Your task to perform on an android device: turn on location history Image 0: 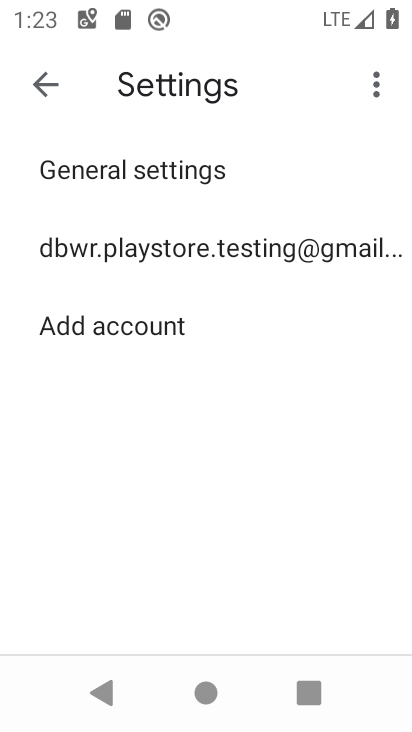
Step 0: press home button
Your task to perform on an android device: turn on location history Image 1: 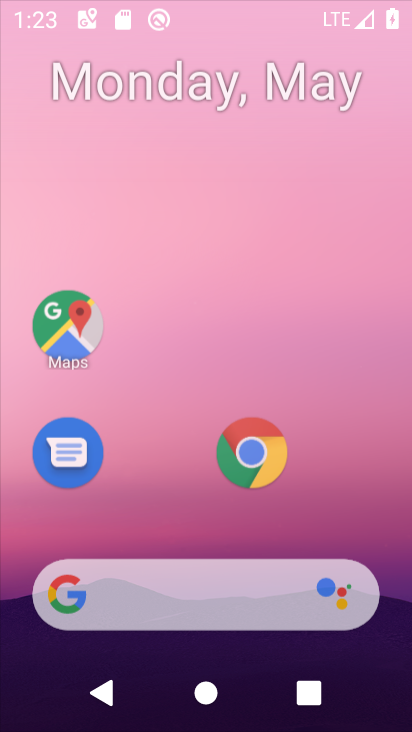
Step 1: drag from (148, 556) to (381, 5)
Your task to perform on an android device: turn on location history Image 2: 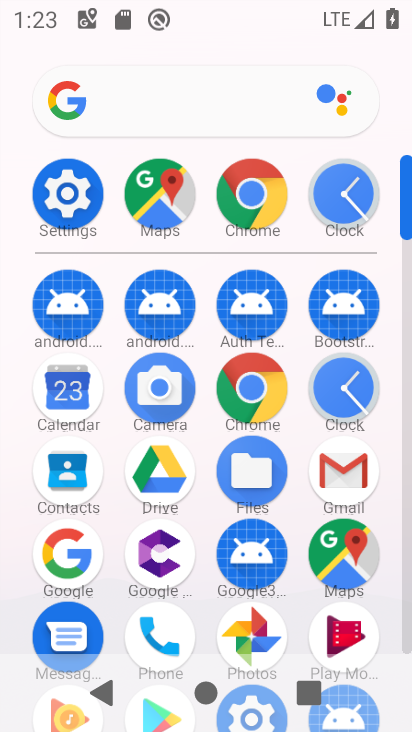
Step 2: click (78, 197)
Your task to perform on an android device: turn on location history Image 3: 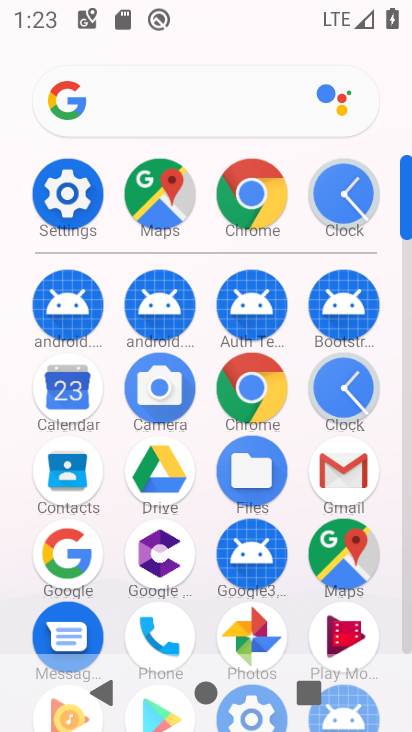
Step 3: click (78, 197)
Your task to perform on an android device: turn on location history Image 4: 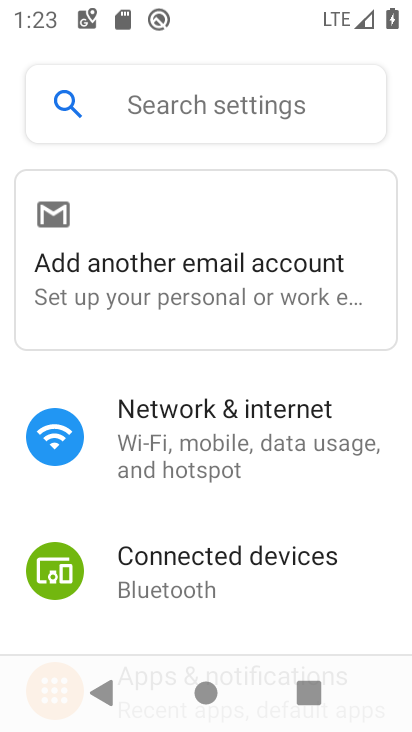
Step 4: drag from (208, 625) to (355, 30)
Your task to perform on an android device: turn on location history Image 5: 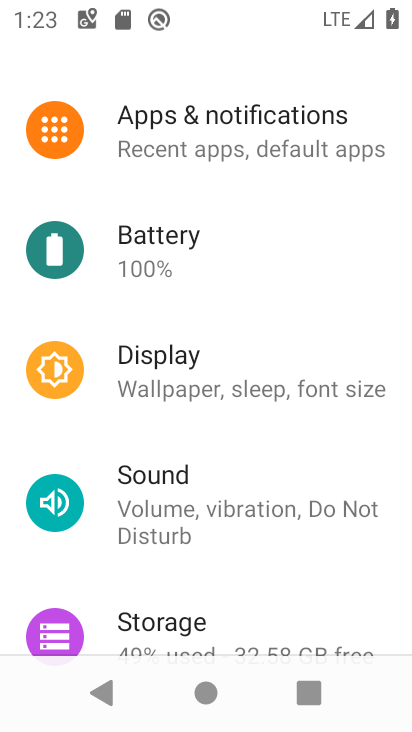
Step 5: drag from (214, 528) to (323, 84)
Your task to perform on an android device: turn on location history Image 6: 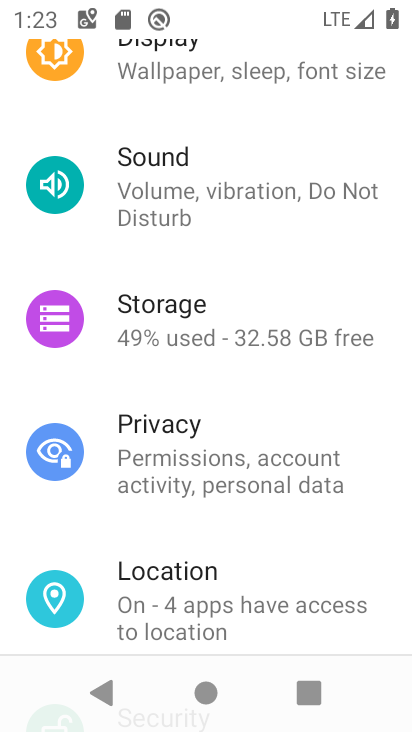
Step 6: click (227, 578)
Your task to perform on an android device: turn on location history Image 7: 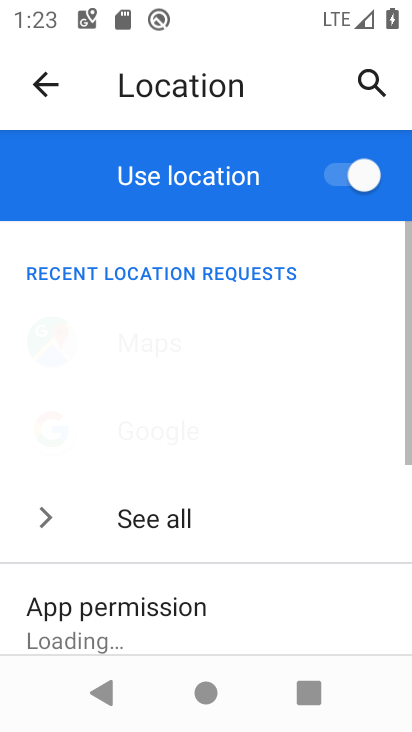
Step 7: drag from (229, 567) to (336, 160)
Your task to perform on an android device: turn on location history Image 8: 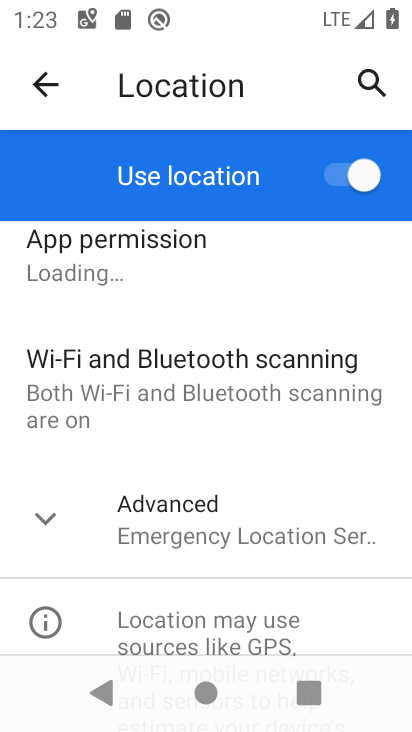
Step 8: click (146, 576)
Your task to perform on an android device: turn on location history Image 9: 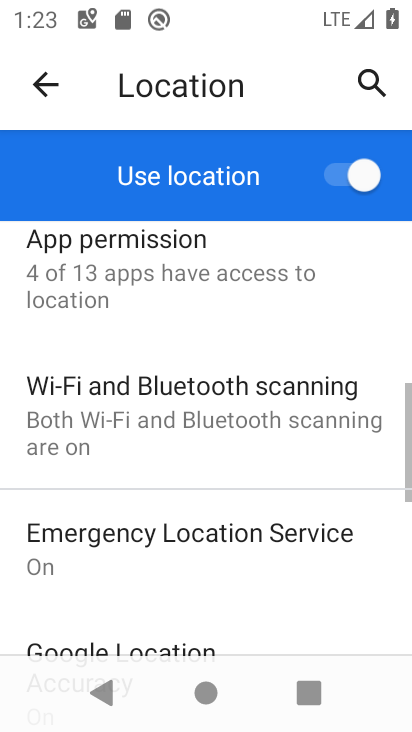
Step 9: drag from (115, 527) to (328, 163)
Your task to perform on an android device: turn on location history Image 10: 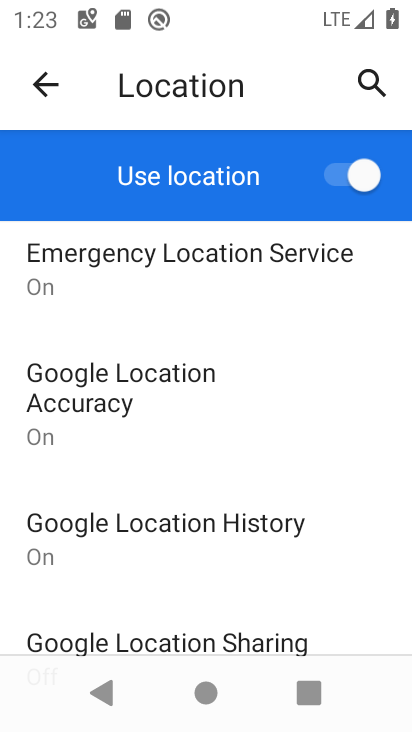
Step 10: click (176, 550)
Your task to perform on an android device: turn on location history Image 11: 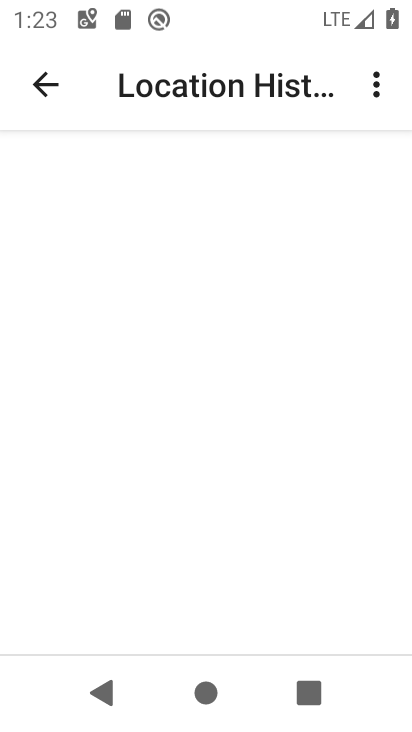
Step 11: task complete